Your task to perform on an android device: Search for "The Dispatcher" by John Scalzi on Goodreads Image 0: 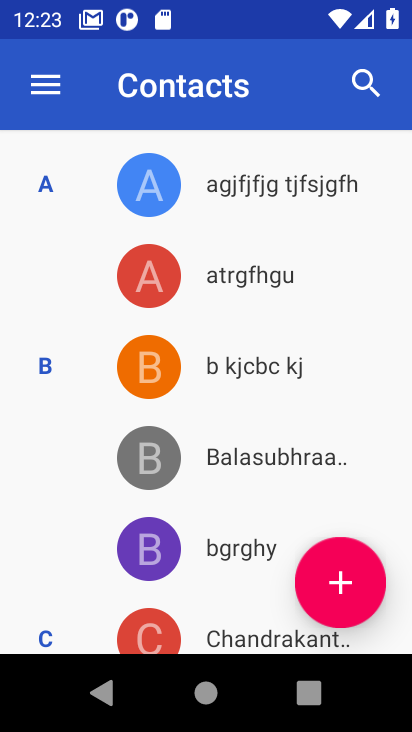
Step 0: press home button
Your task to perform on an android device: Search for "The Dispatcher" by John Scalzi on Goodreads Image 1: 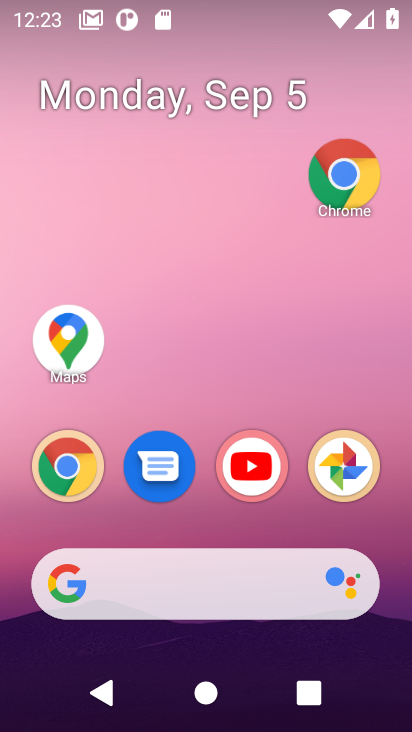
Step 1: drag from (185, 427) to (80, 0)
Your task to perform on an android device: Search for "The Dispatcher" by John Scalzi on Goodreads Image 2: 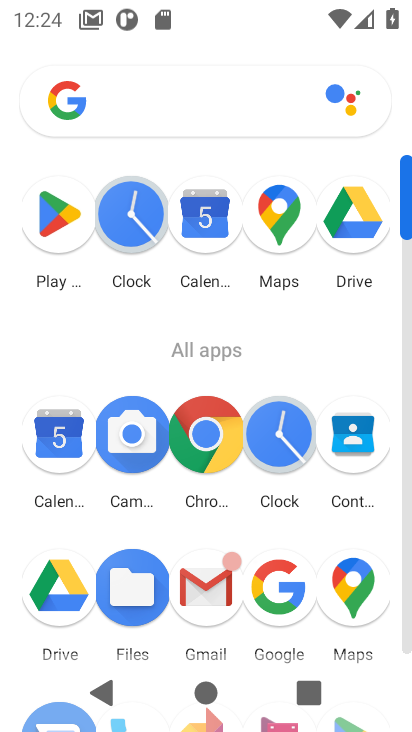
Step 2: click (212, 448)
Your task to perform on an android device: Search for "The Dispatcher" by John Scalzi on Goodreads Image 3: 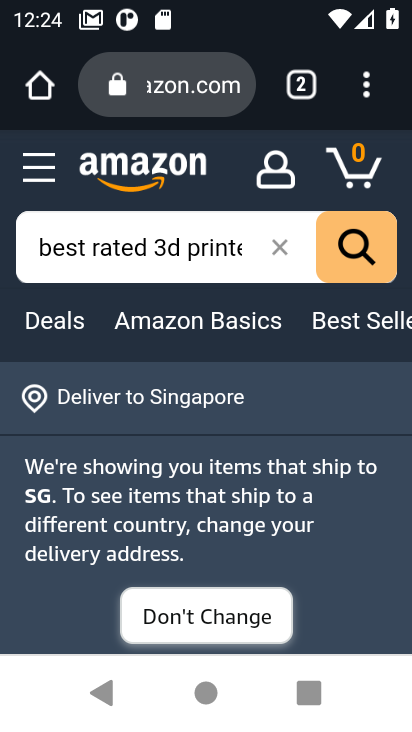
Step 3: task complete